Your task to perform on an android device: Search for pizza restaurants on Maps Image 0: 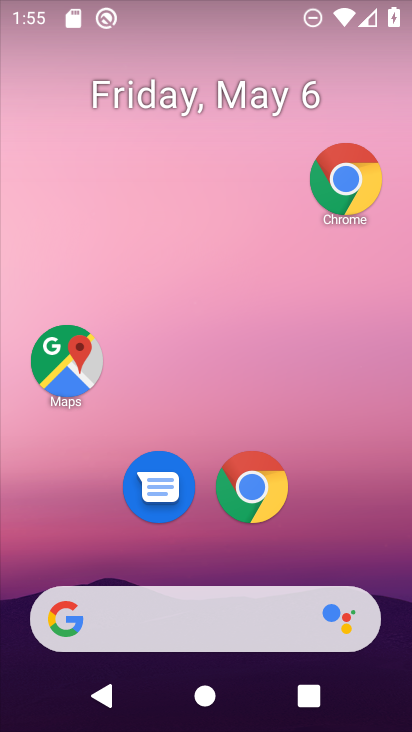
Step 0: click (55, 370)
Your task to perform on an android device: Search for pizza restaurants on Maps Image 1: 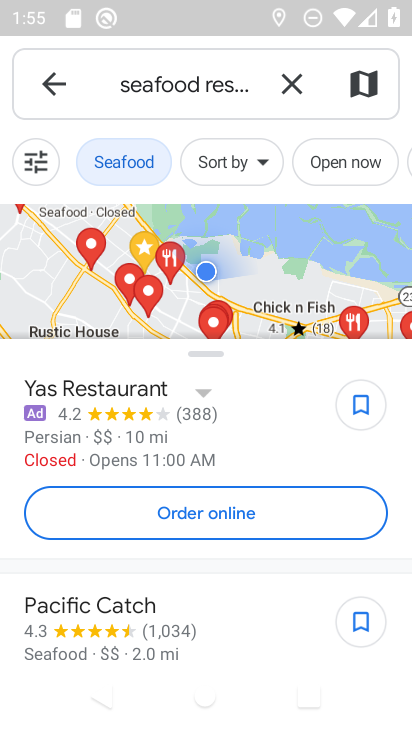
Step 1: click (292, 84)
Your task to perform on an android device: Search for pizza restaurants on Maps Image 2: 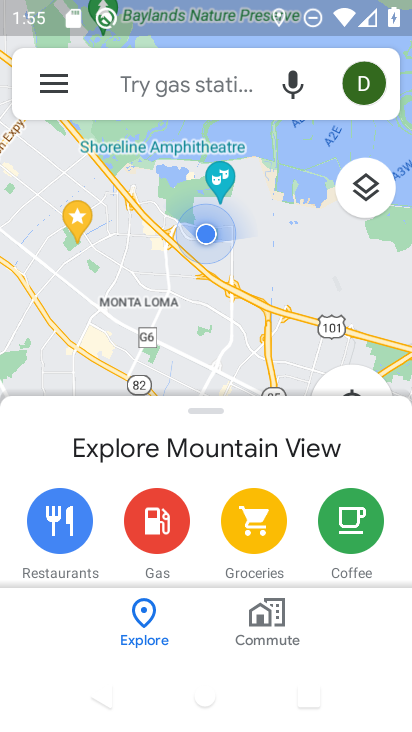
Step 2: click (199, 83)
Your task to perform on an android device: Search for pizza restaurants on Maps Image 3: 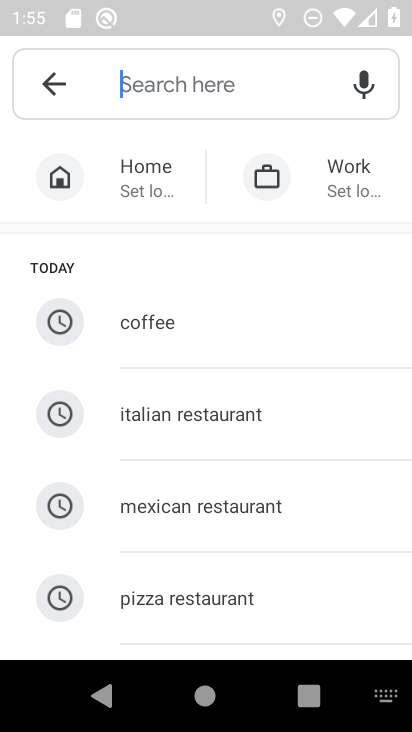
Step 3: click (217, 581)
Your task to perform on an android device: Search for pizza restaurants on Maps Image 4: 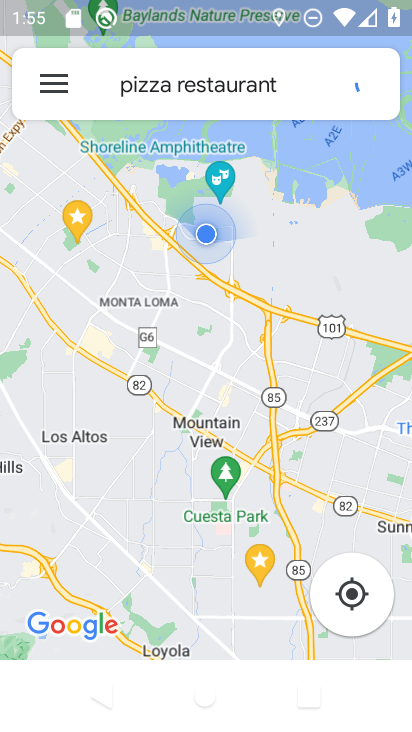
Step 4: task complete